Your task to perform on an android device: Clear the shopping cart on ebay.com. Add macbook air to the cart on ebay.com, then select checkout. Image 0: 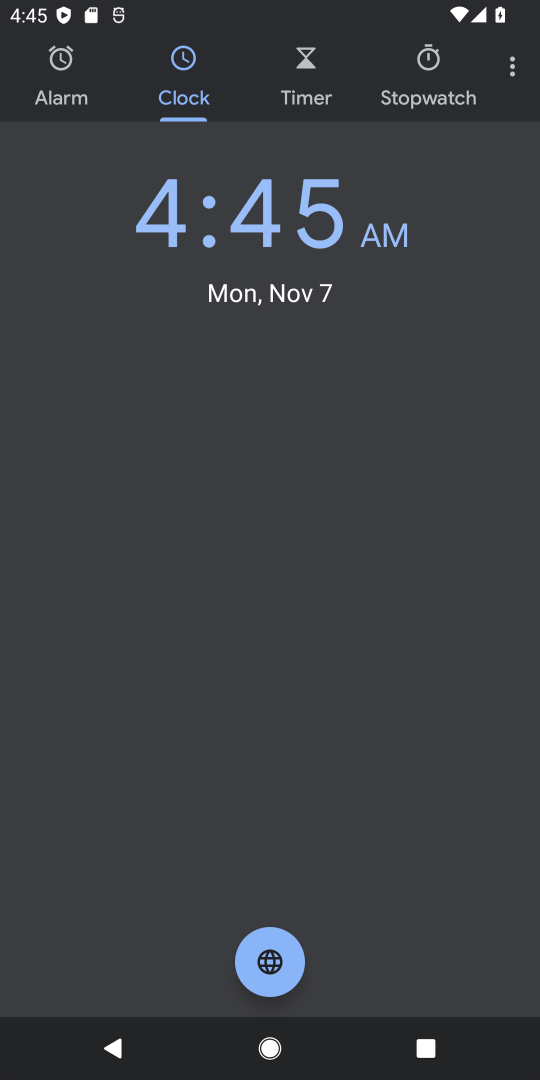
Step 0: press home button
Your task to perform on an android device: Clear the shopping cart on ebay.com. Add macbook air to the cart on ebay.com, then select checkout. Image 1: 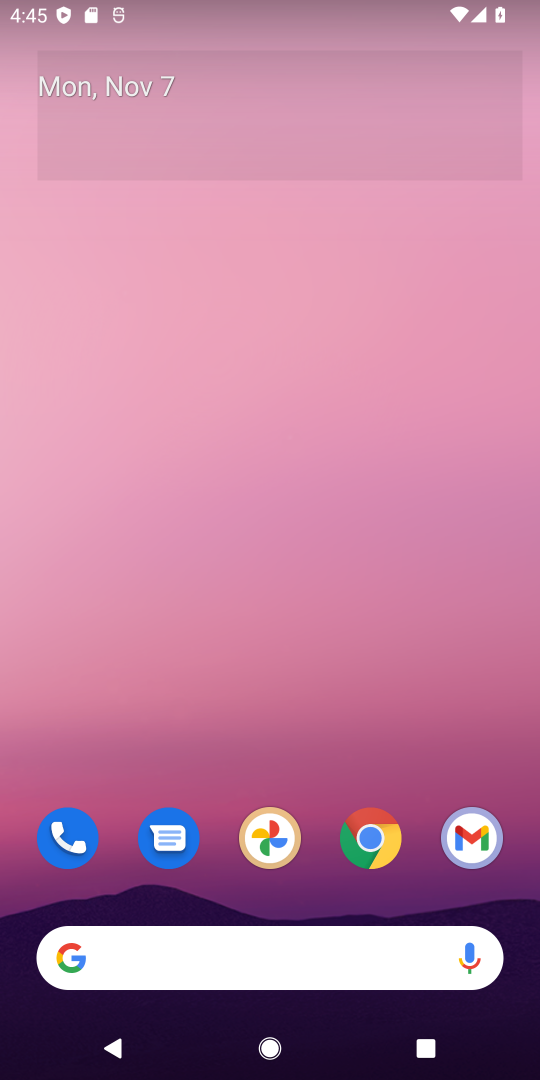
Step 1: click (365, 845)
Your task to perform on an android device: Clear the shopping cart on ebay.com. Add macbook air to the cart on ebay.com, then select checkout. Image 2: 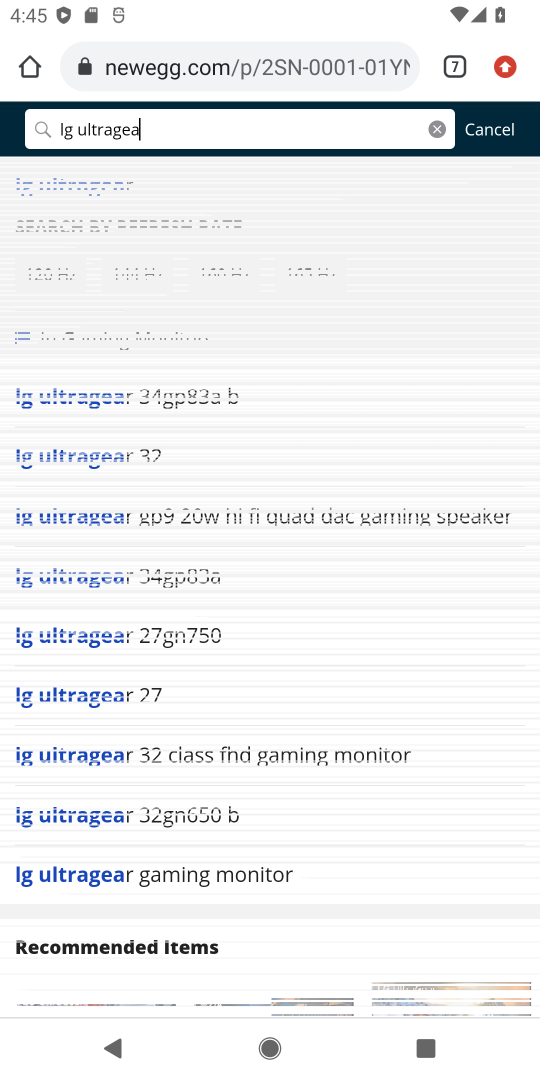
Step 2: click (448, 73)
Your task to perform on an android device: Clear the shopping cart on ebay.com. Add macbook air to the cart on ebay.com, then select checkout. Image 3: 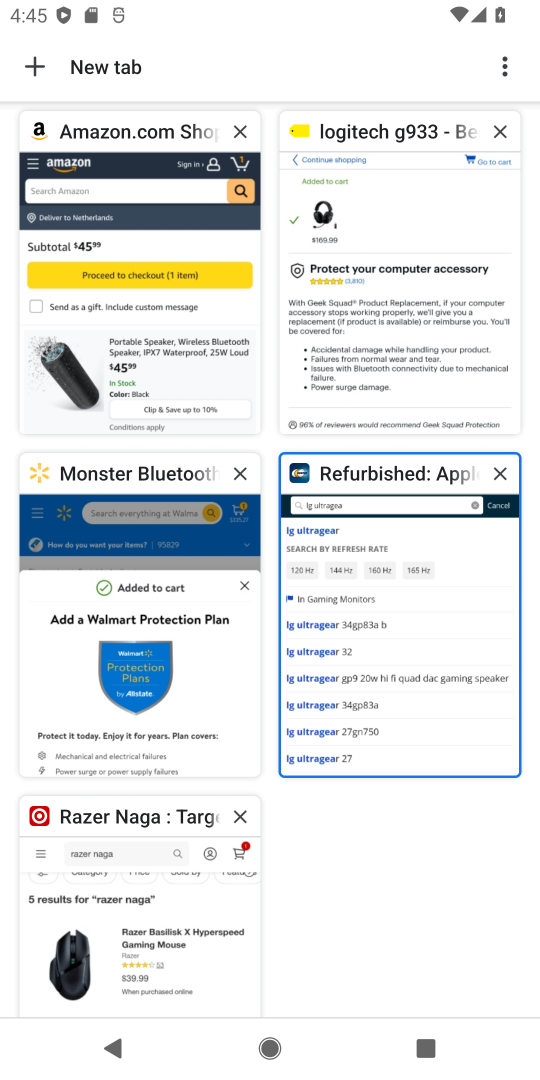
Step 3: drag from (194, 273) to (215, 924)
Your task to perform on an android device: Clear the shopping cart on ebay.com. Add macbook air to the cart on ebay.com, then select checkout. Image 4: 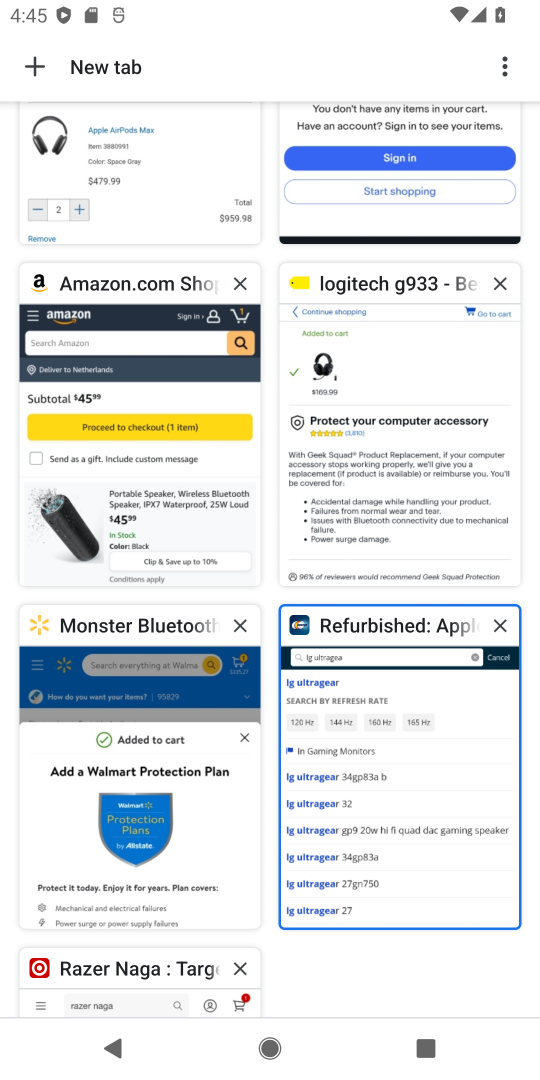
Step 4: click (167, 184)
Your task to perform on an android device: Clear the shopping cart on ebay.com. Add macbook air to the cart on ebay.com, then select checkout. Image 5: 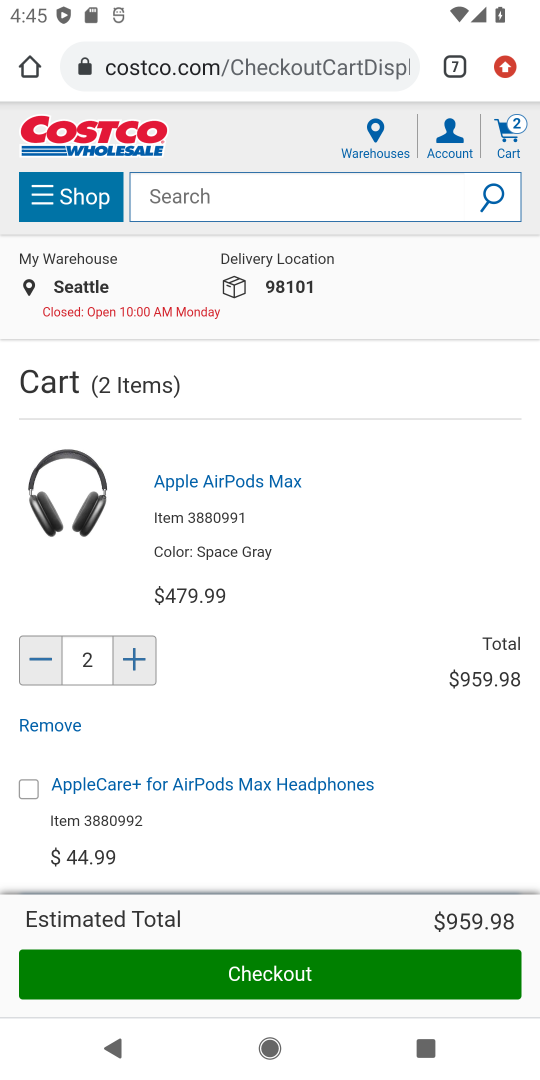
Step 5: click (456, 68)
Your task to perform on an android device: Clear the shopping cart on ebay.com. Add macbook air to the cart on ebay.com, then select checkout. Image 6: 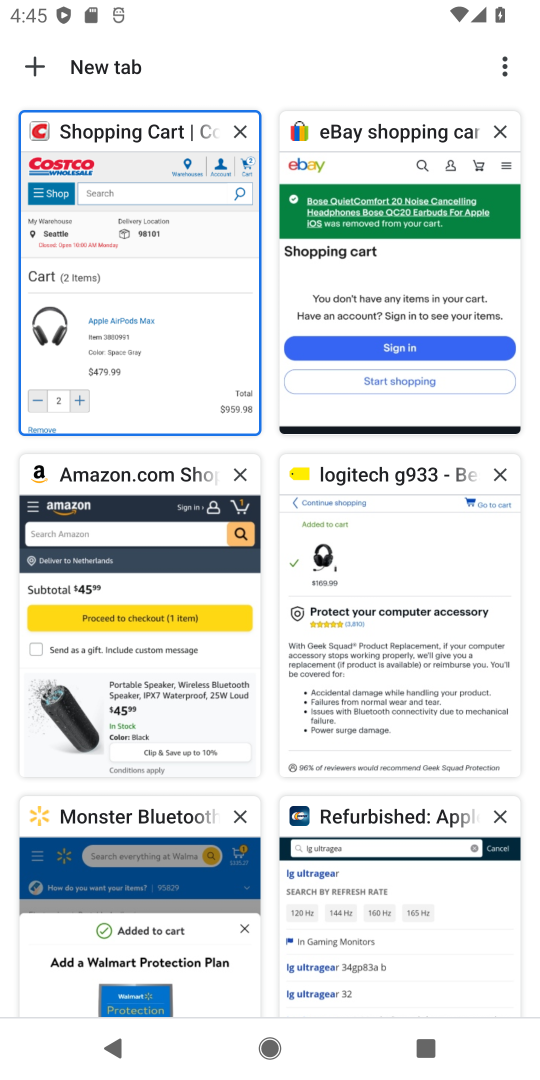
Step 6: click (326, 266)
Your task to perform on an android device: Clear the shopping cart on ebay.com. Add macbook air to the cart on ebay.com, then select checkout. Image 7: 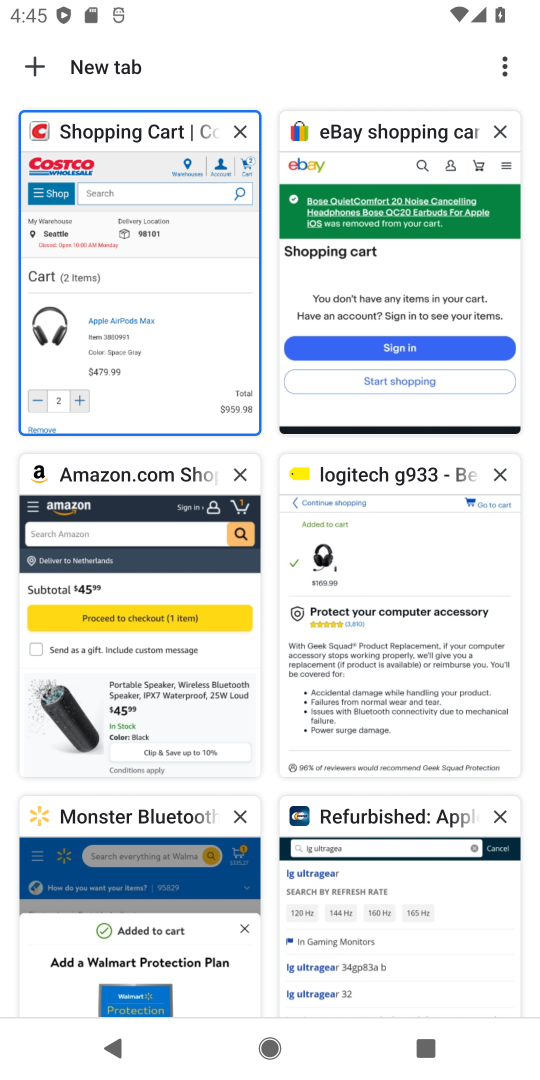
Step 7: click (326, 266)
Your task to perform on an android device: Clear the shopping cart on ebay.com. Add macbook air to the cart on ebay.com, then select checkout. Image 8: 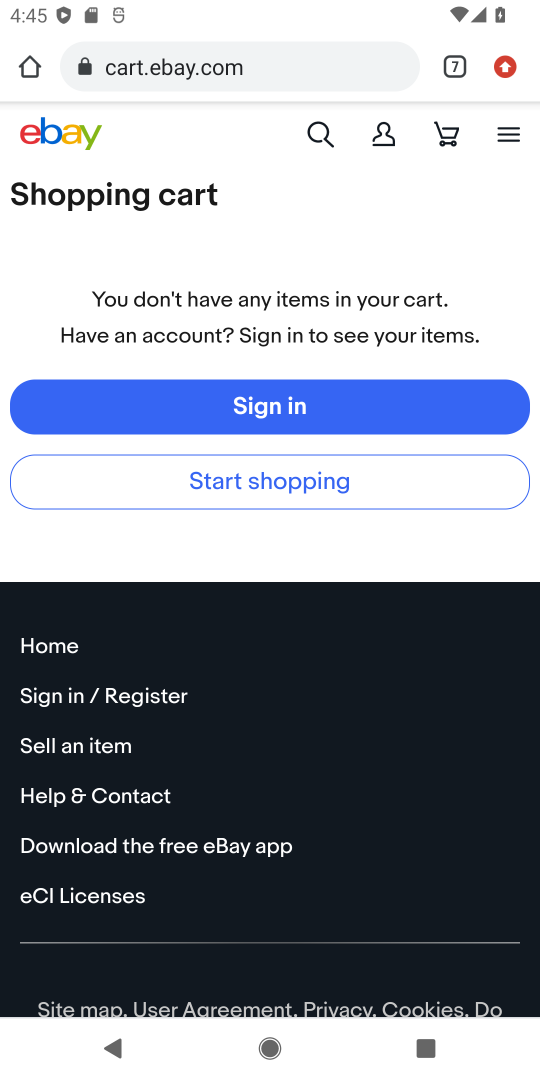
Step 8: click (315, 131)
Your task to perform on an android device: Clear the shopping cart on ebay.com. Add macbook air to the cart on ebay.com, then select checkout. Image 9: 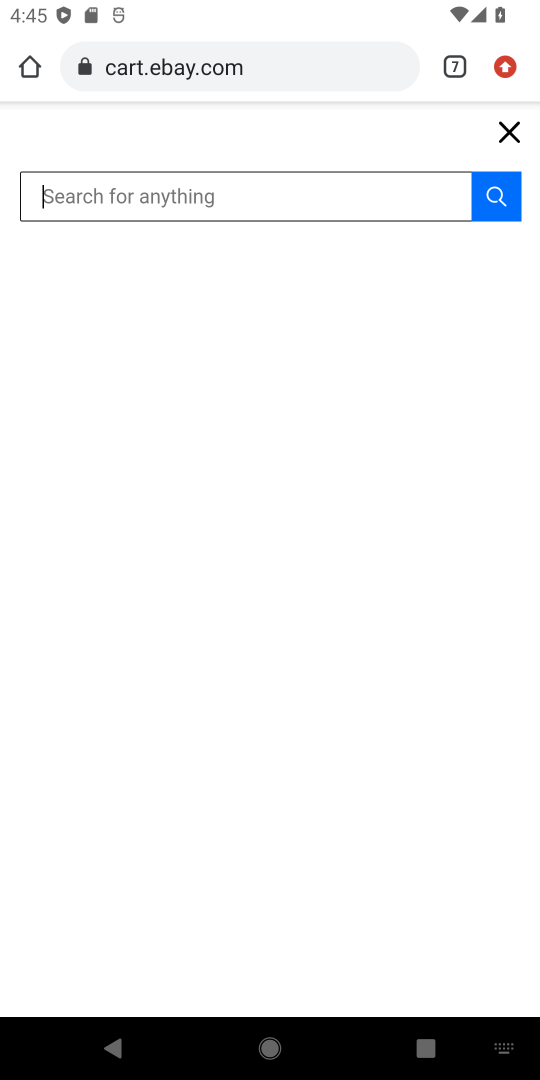
Step 9: type "macbook air"
Your task to perform on an android device: Clear the shopping cart on ebay.com. Add macbook air to the cart on ebay.com, then select checkout. Image 10: 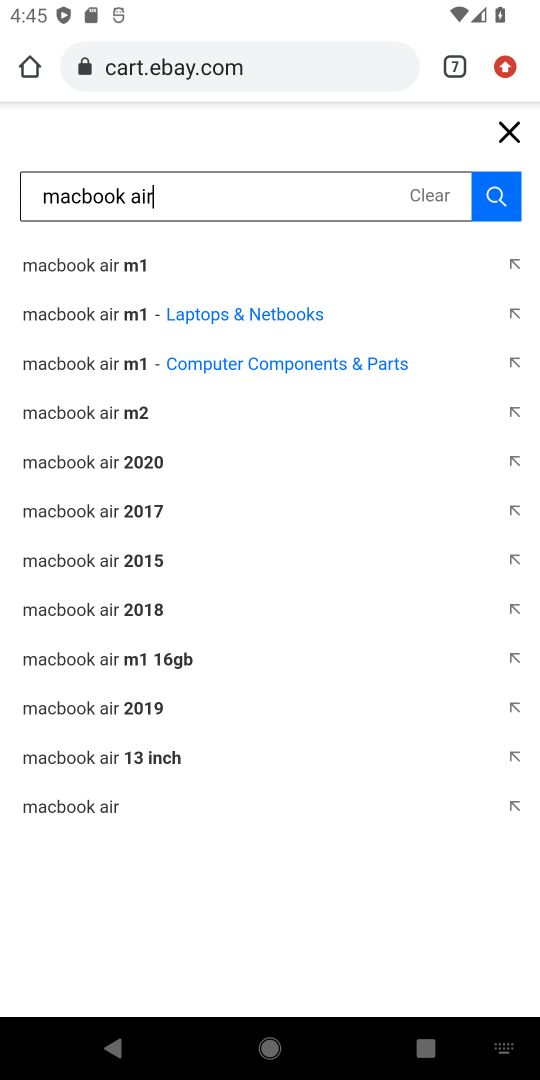
Step 10: click (111, 312)
Your task to perform on an android device: Clear the shopping cart on ebay.com. Add macbook air to the cart on ebay.com, then select checkout. Image 11: 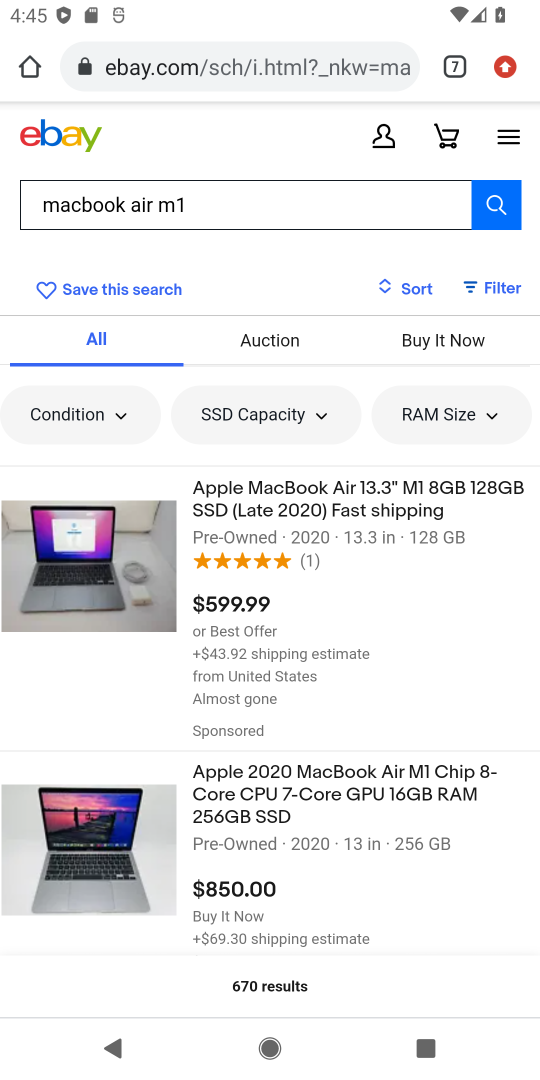
Step 11: click (246, 490)
Your task to perform on an android device: Clear the shopping cart on ebay.com. Add macbook air to the cart on ebay.com, then select checkout. Image 12: 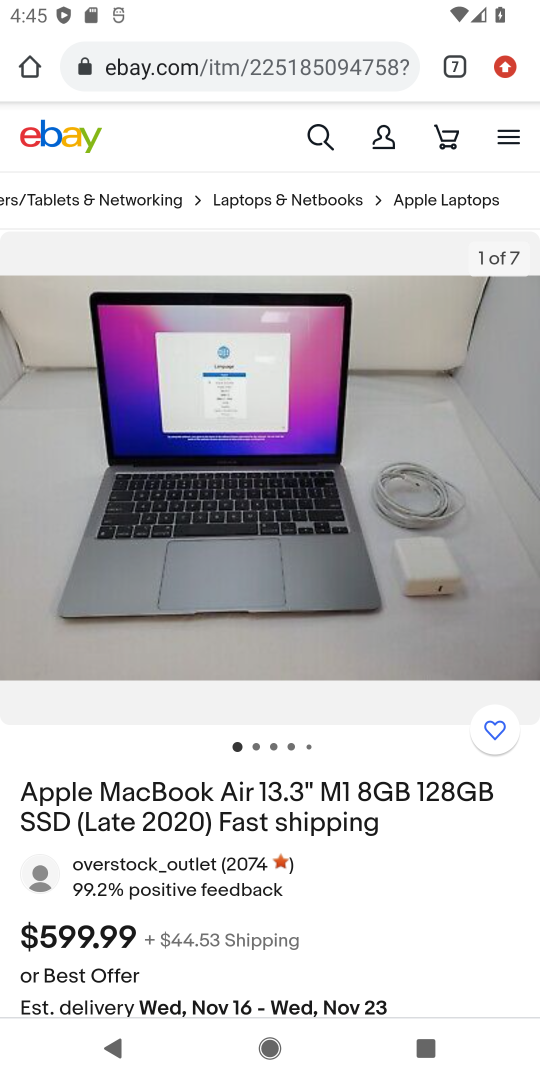
Step 12: drag from (406, 874) to (480, 203)
Your task to perform on an android device: Clear the shopping cart on ebay.com. Add macbook air to the cart on ebay.com, then select checkout. Image 13: 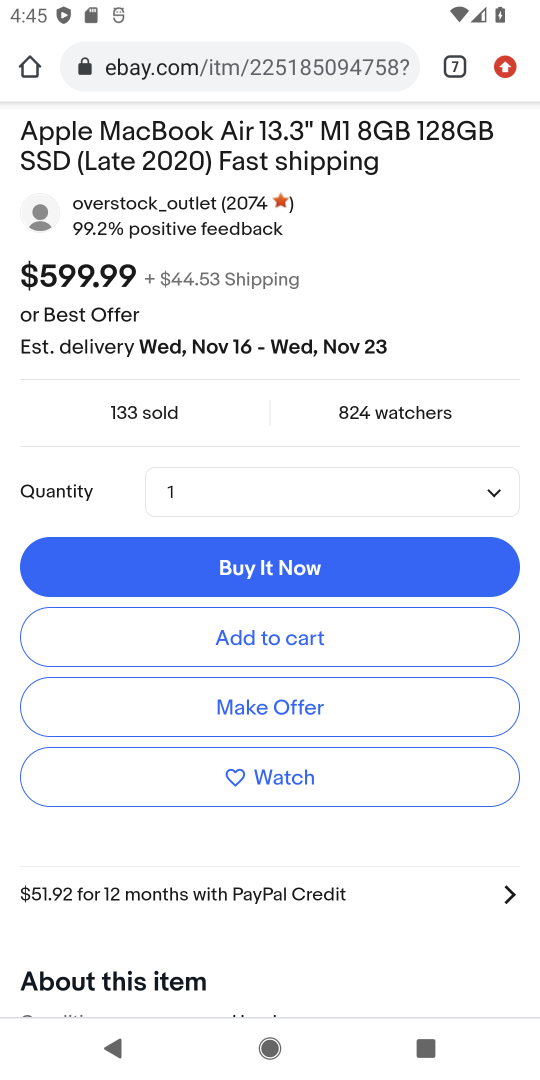
Step 13: click (302, 635)
Your task to perform on an android device: Clear the shopping cart on ebay.com. Add macbook air to the cart on ebay.com, then select checkout. Image 14: 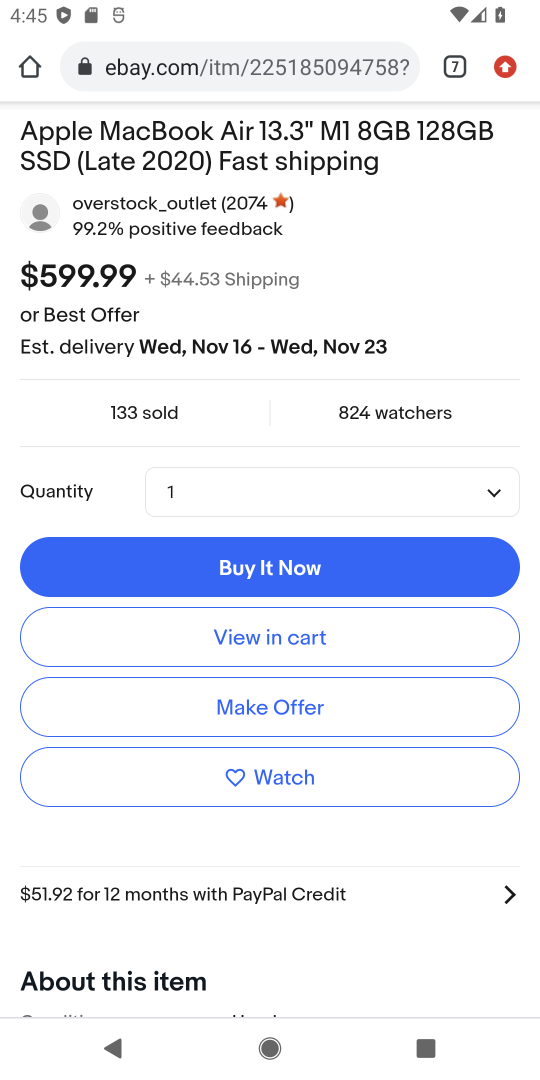
Step 14: click (302, 635)
Your task to perform on an android device: Clear the shopping cart on ebay.com. Add macbook air to the cart on ebay.com, then select checkout. Image 15: 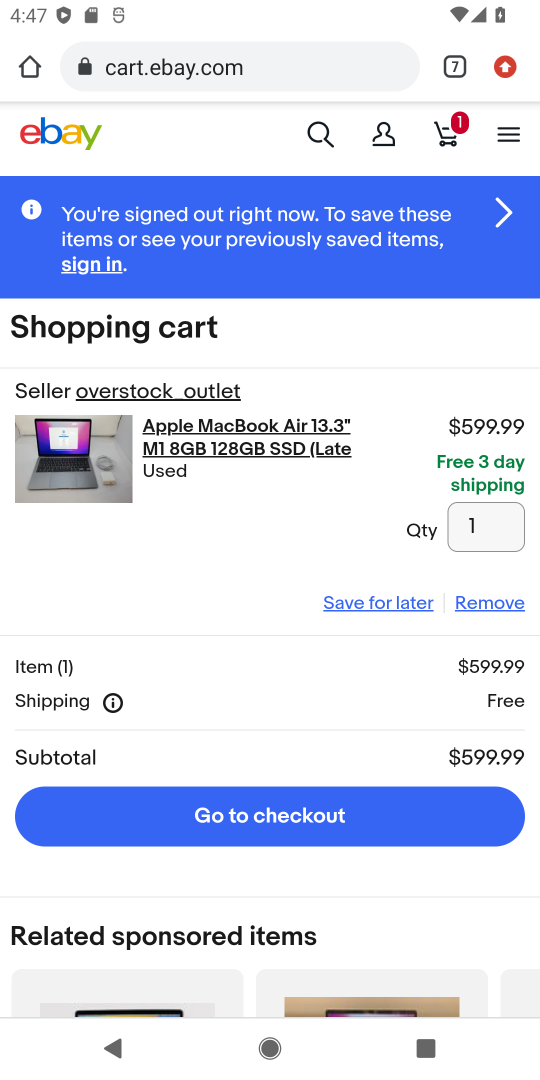
Step 15: click (265, 819)
Your task to perform on an android device: Clear the shopping cart on ebay.com. Add macbook air to the cart on ebay.com, then select checkout. Image 16: 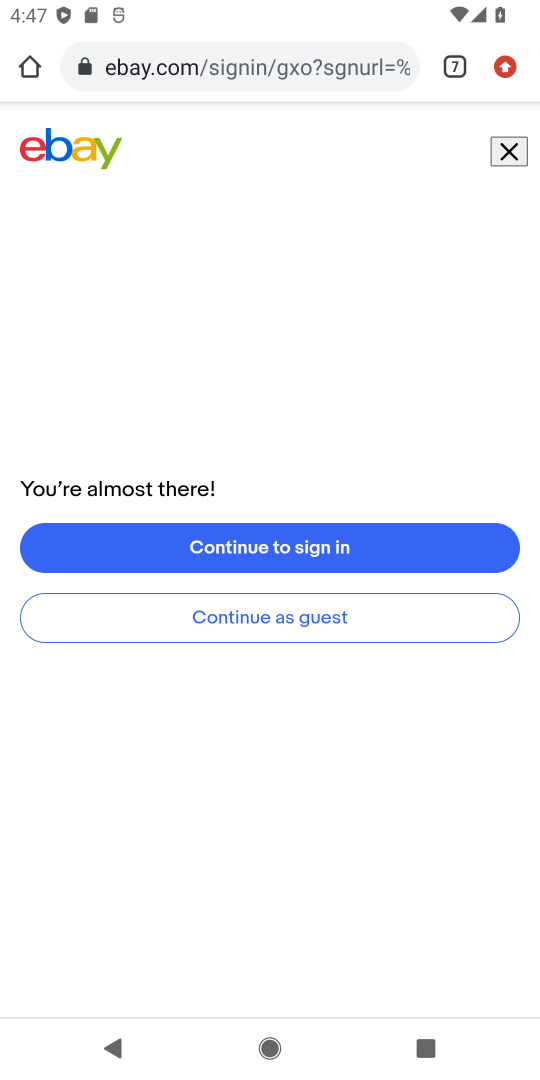
Step 16: task complete